Your task to perform on an android device: add a label to a message in the gmail app Image 0: 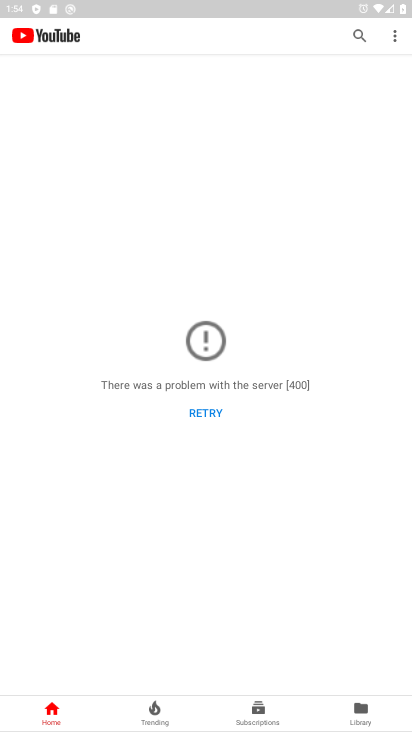
Step 0: press home button
Your task to perform on an android device: add a label to a message in the gmail app Image 1: 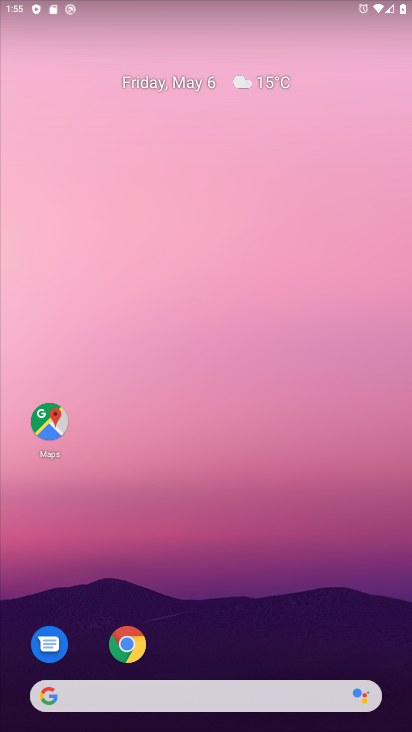
Step 1: drag from (240, 569) to (269, 23)
Your task to perform on an android device: add a label to a message in the gmail app Image 2: 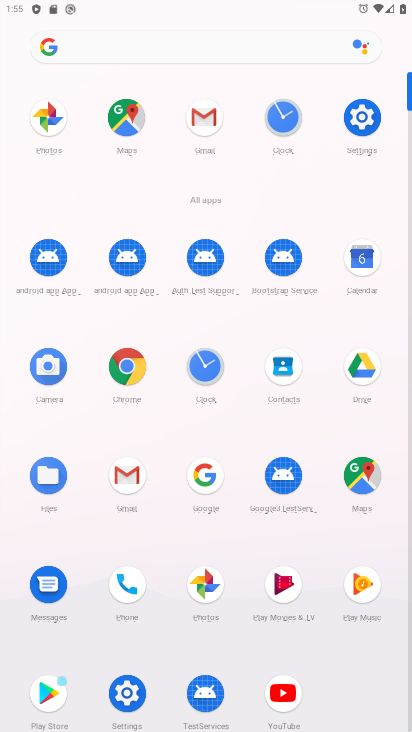
Step 2: click (206, 121)
Your task to perform on an android device: add a label to a message in the gmail app Image 3: 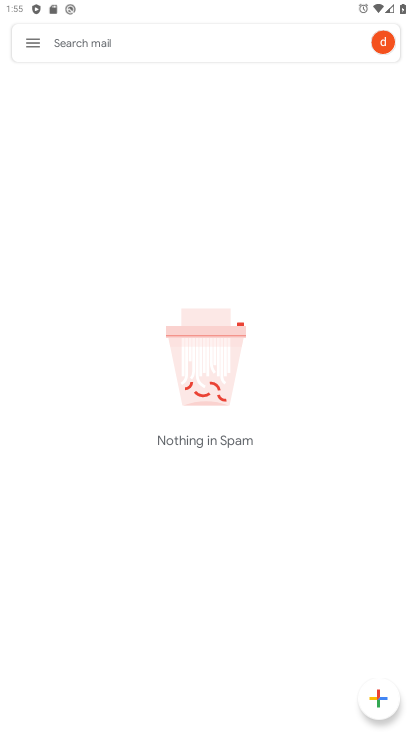
Step 3: click (31, 44)
Your task to perform on an android device: add a label to a message in the gmail app Image 4: 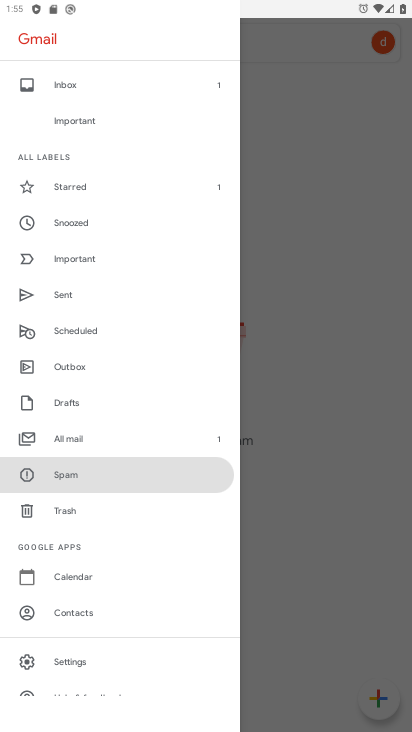
Step 4: click (96, 432)
Your task to perform on an android device: add a label to a message in the gmail app Image 5: 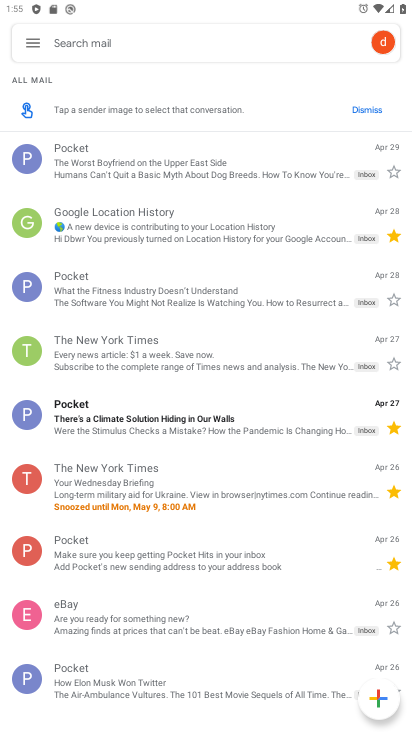
Step 5: click (139, 417)
Your task to perform on an android device: add a label to a message in the gmail app Image 6: 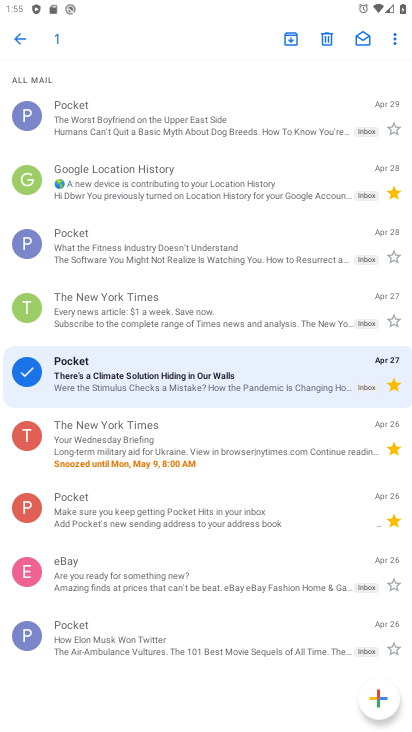
Step 6: click (396, 44)
Your task to perform on an android device: add a label to a message in the gmail app Image 7: 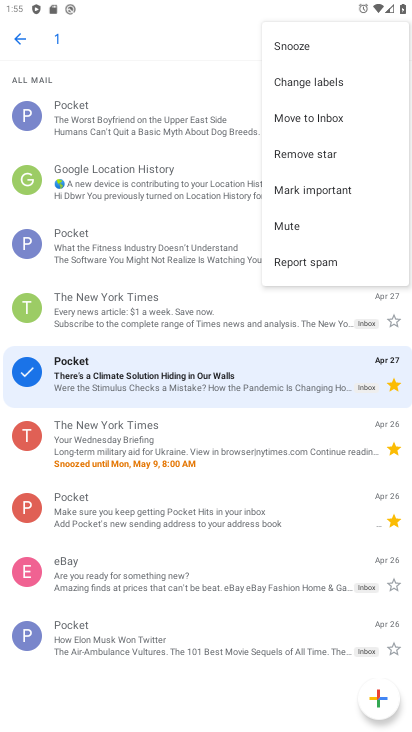
Step 7: click (363, 89)
Your task to perform on an android device: add a label to a message in the gmail app Image 8: 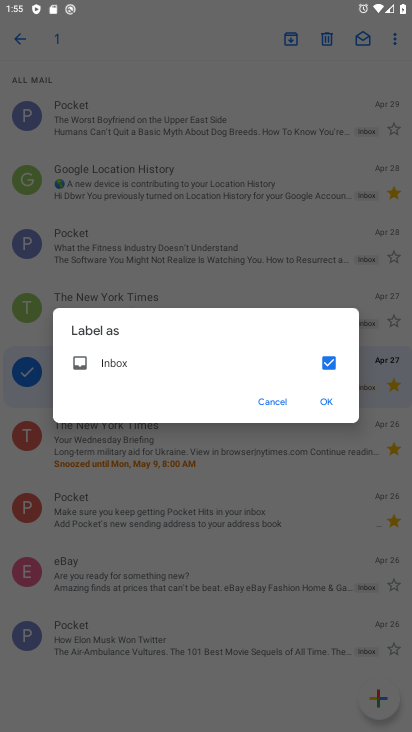
Step 8: click (321, 393)
Your task to perform on an android device: add a label to a message in the gmail app Image 9: 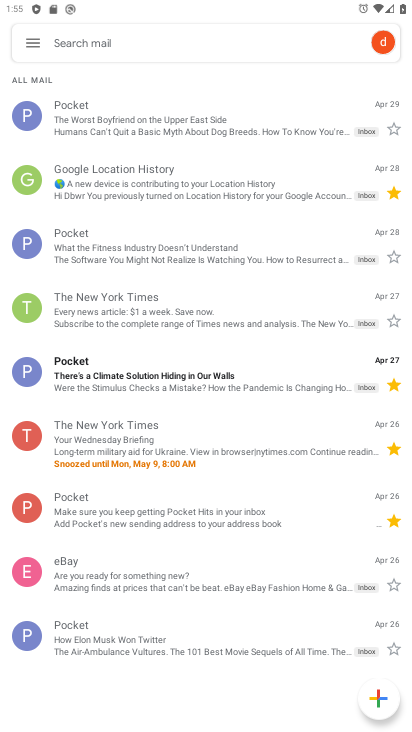
Step 9: task complete